Your task to perform on an android device: visit the assistant section in the google photos Image 0: 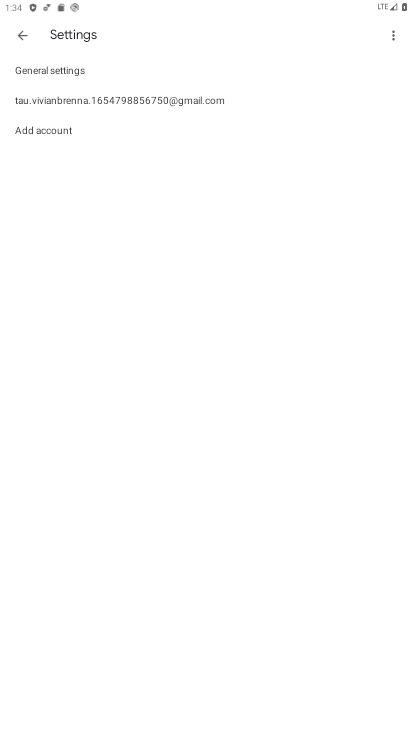
Step 0: press home button
Your task to perform on an android device: visit the assistant section in the google photos Image 1: 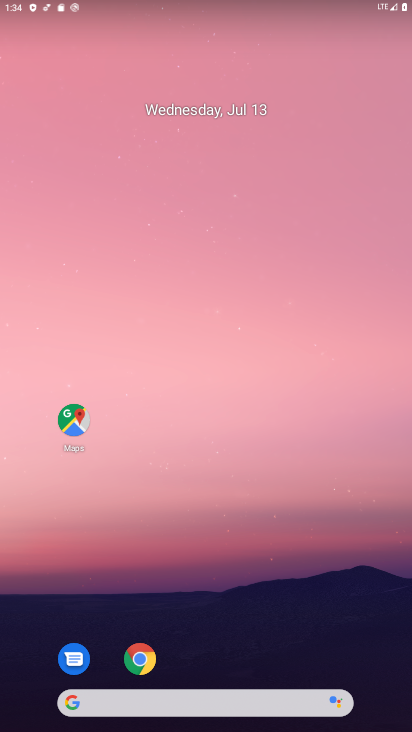
Step 1: drag from (357, 652) to (326, 133)
Your task to perform on an android device: visit the assistant section in the google photos Image 2: 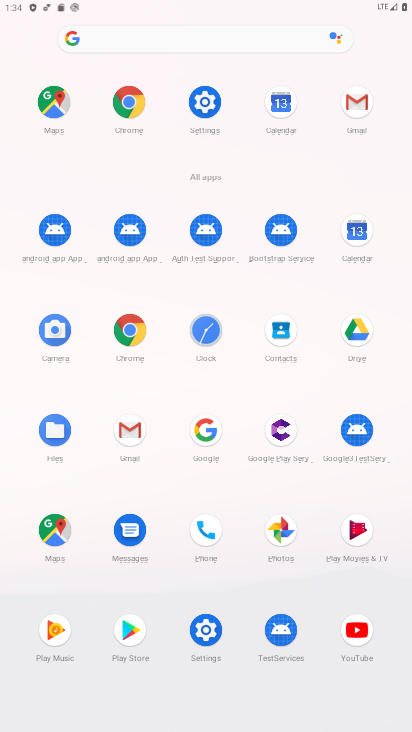
Step 2: click (280, 531)
Your task to perform on an android device: visit the assistant section in the google photos Image 3: 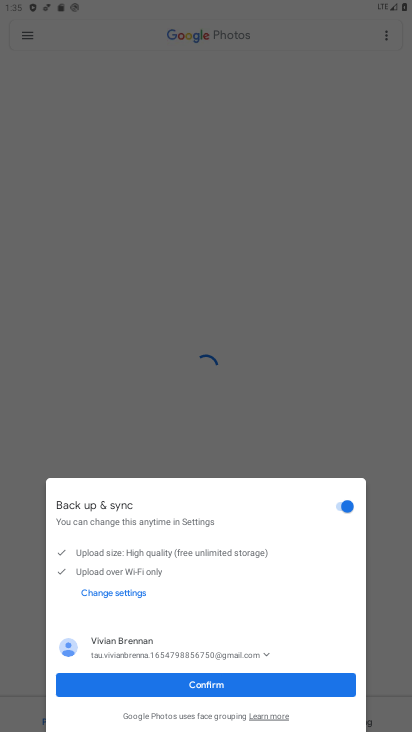
Step 3: click (205, 683)
Your task to perform on an android device: visit the assistant section in the google photos Image 4: 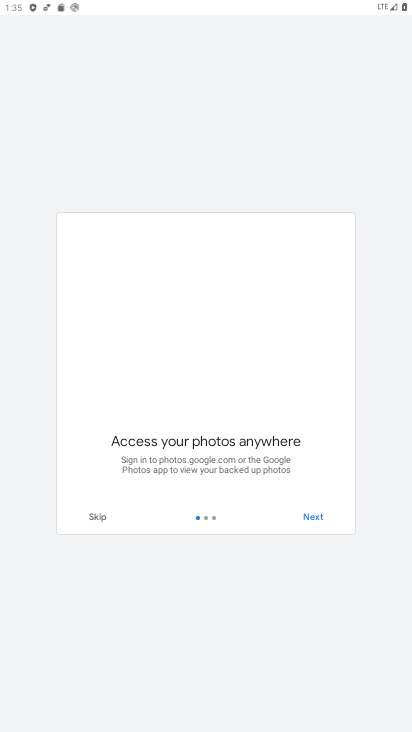
Step 4: click (90, 513)
Your task to perform on an android device: visit the assistant section in the google photos Image 5: 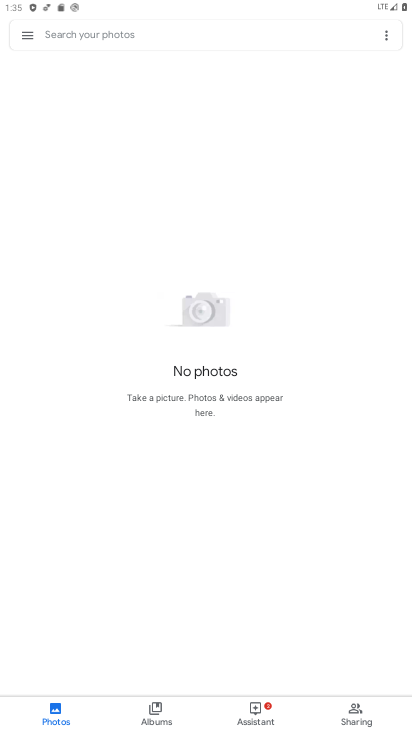
Step 5: click (256, 712)
Your task to perform on an android device: visit the assistant section in the google photos Image 6: 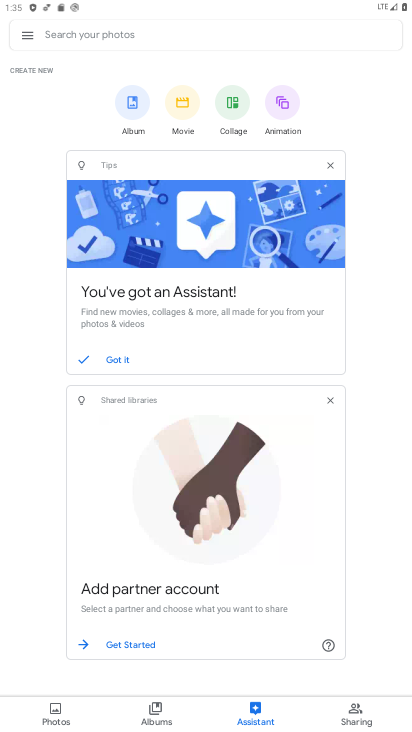
Step 6: task complete